Your task to perform on an android device: Open Google Chrome and open the bookmarks view Image 0: 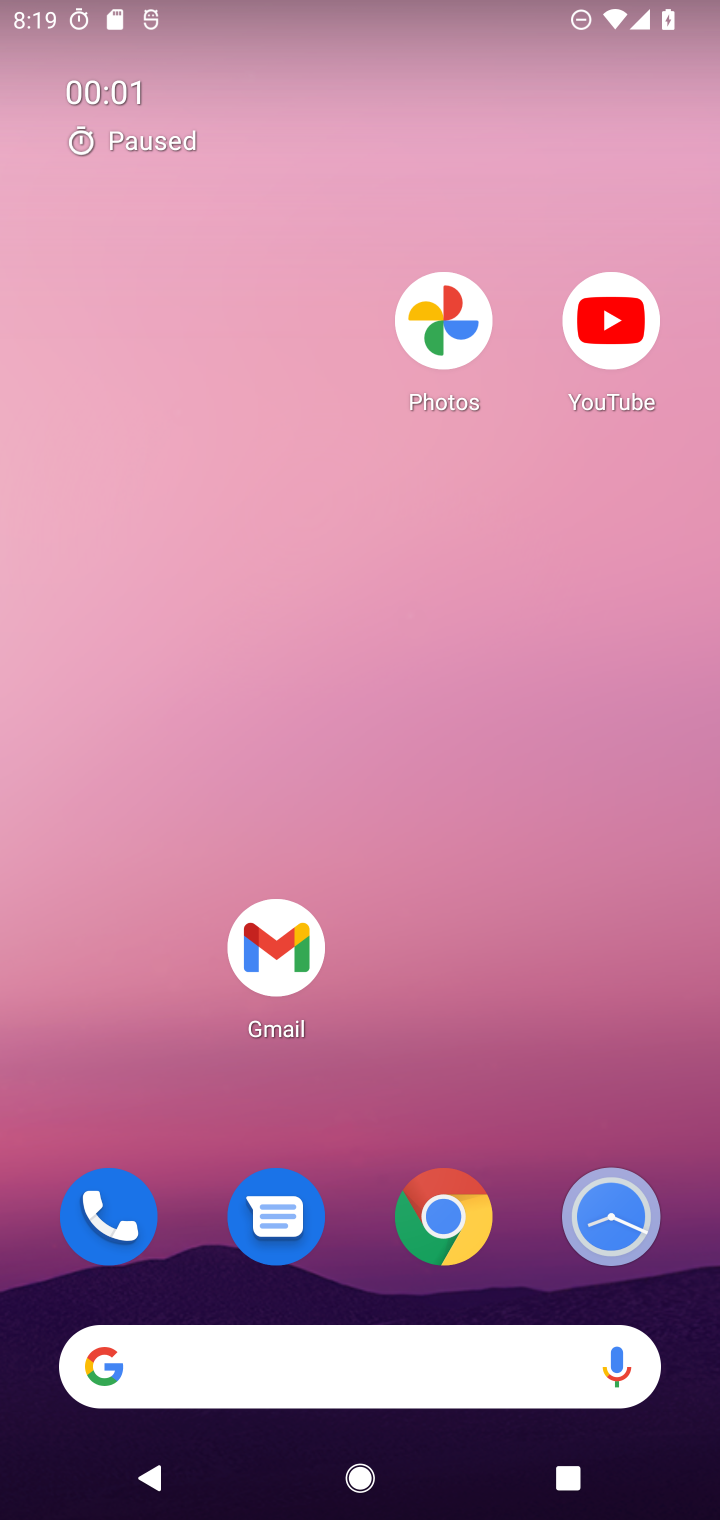
Step 0: drag from (508, 1066) to (517, 59)
Your task to perform on an android device: Open Google Chrome and open the bookmarks view Image 1: 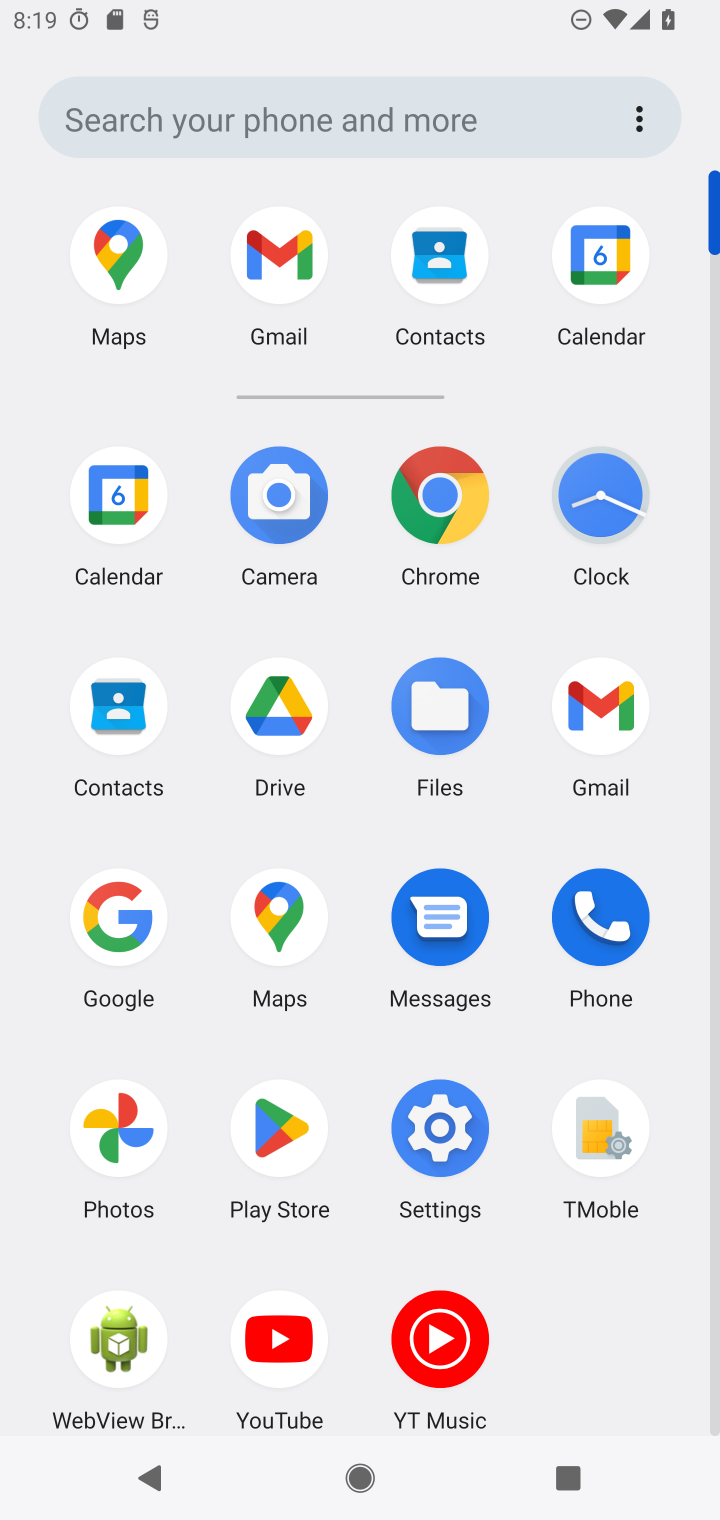
Step 1: click (450, 502)
Your task to perform on an android device: Open Google Chrome and open the bookmarks view Image 2: 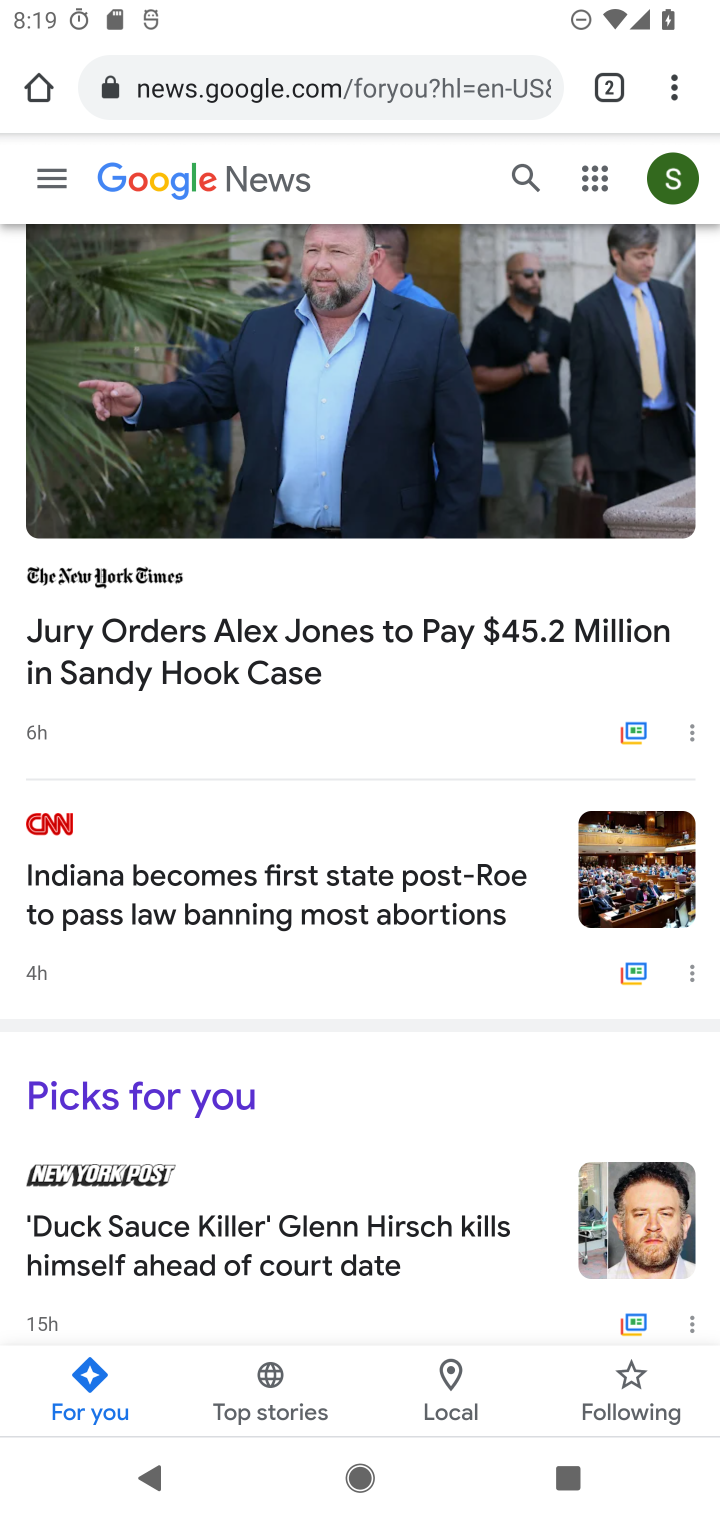
Step 2: task complete